Your task to perform on an android device: Check the weather Image 0: 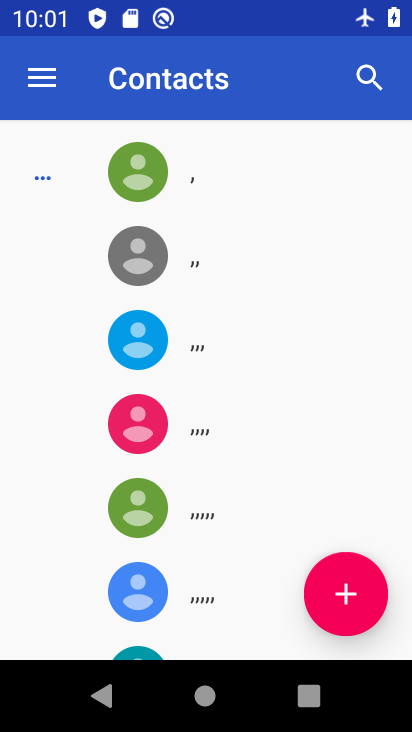
Step 0: drag from (3, 287) to (372, 282)
Your task to perform on an android device: Check the weather Image 1: 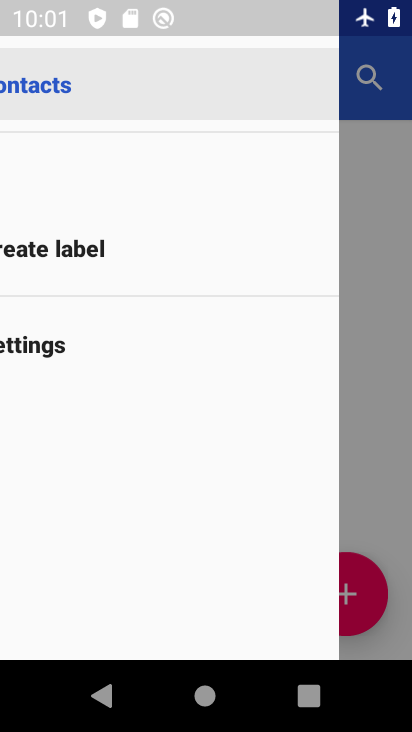
Step 1: press home button
Your task to perform on an android device: Check the weather Image 2: 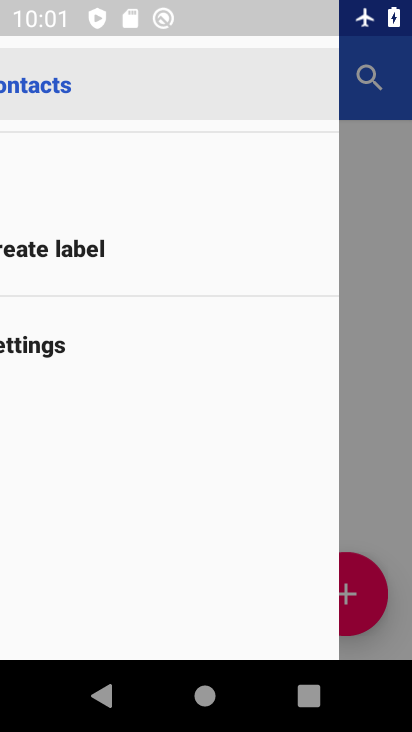
Step 2: click (380, 382)
Your task to perform on an android device: Check the weather Image 3: 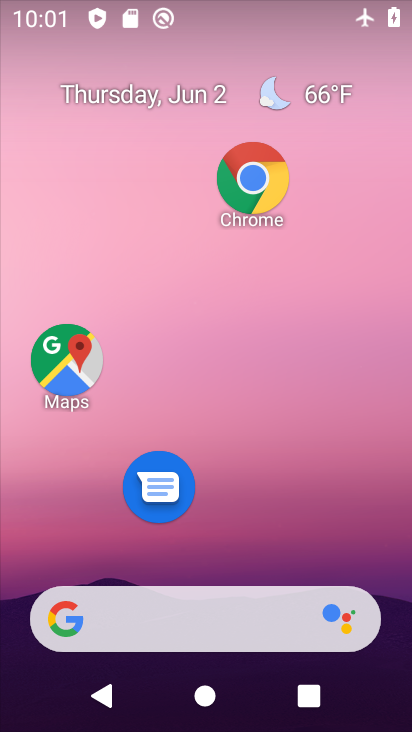
Step 3: drag from (232, 725) to (235, 210)
Your task to perform on an android device: Check the weather Image 4: 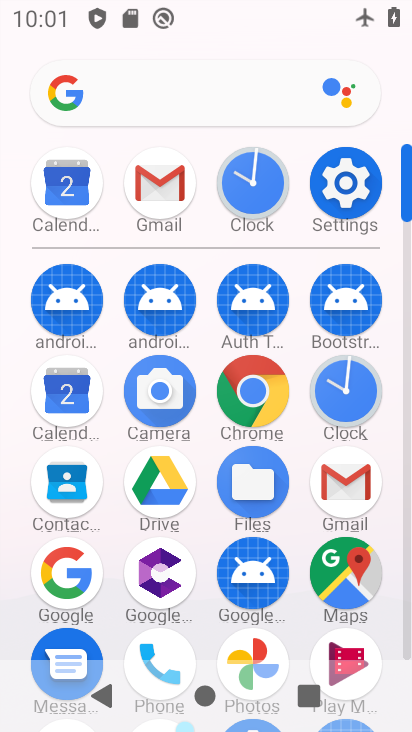
Step 4: click (55, 580)
Your task to perform on an android device: Check the weather Image 5: 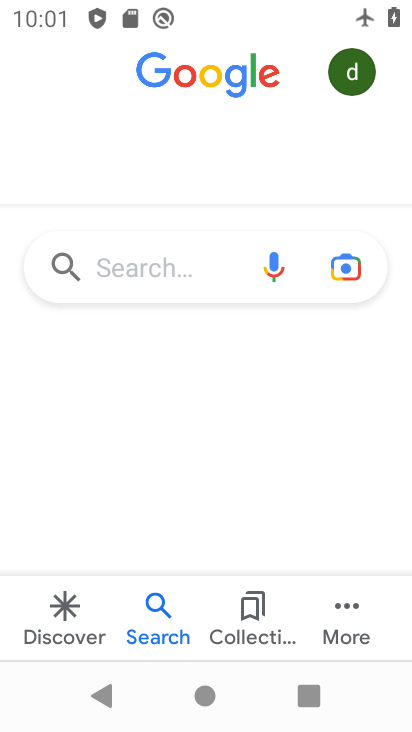
Step 5: click (172, 267)
Your task to perform on an android device: Check the weather Image 6: 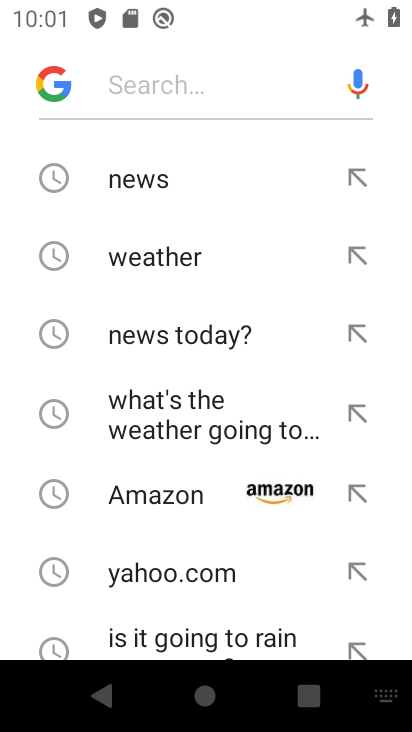
Step 6: click (158, 258)
Your task to perform on an android device: Check the weather Image 7: 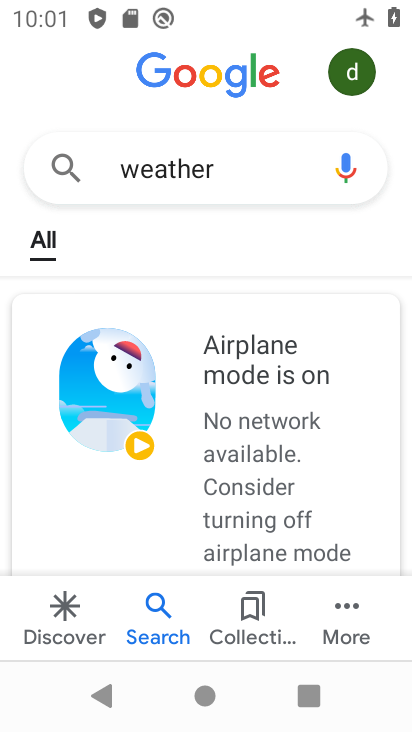
Step 7: task complete